Your task to perform on an android device: open app "NewsBreak: Local News & Alerts" (install if not already installed), go to login, and select forgot password Image 0: 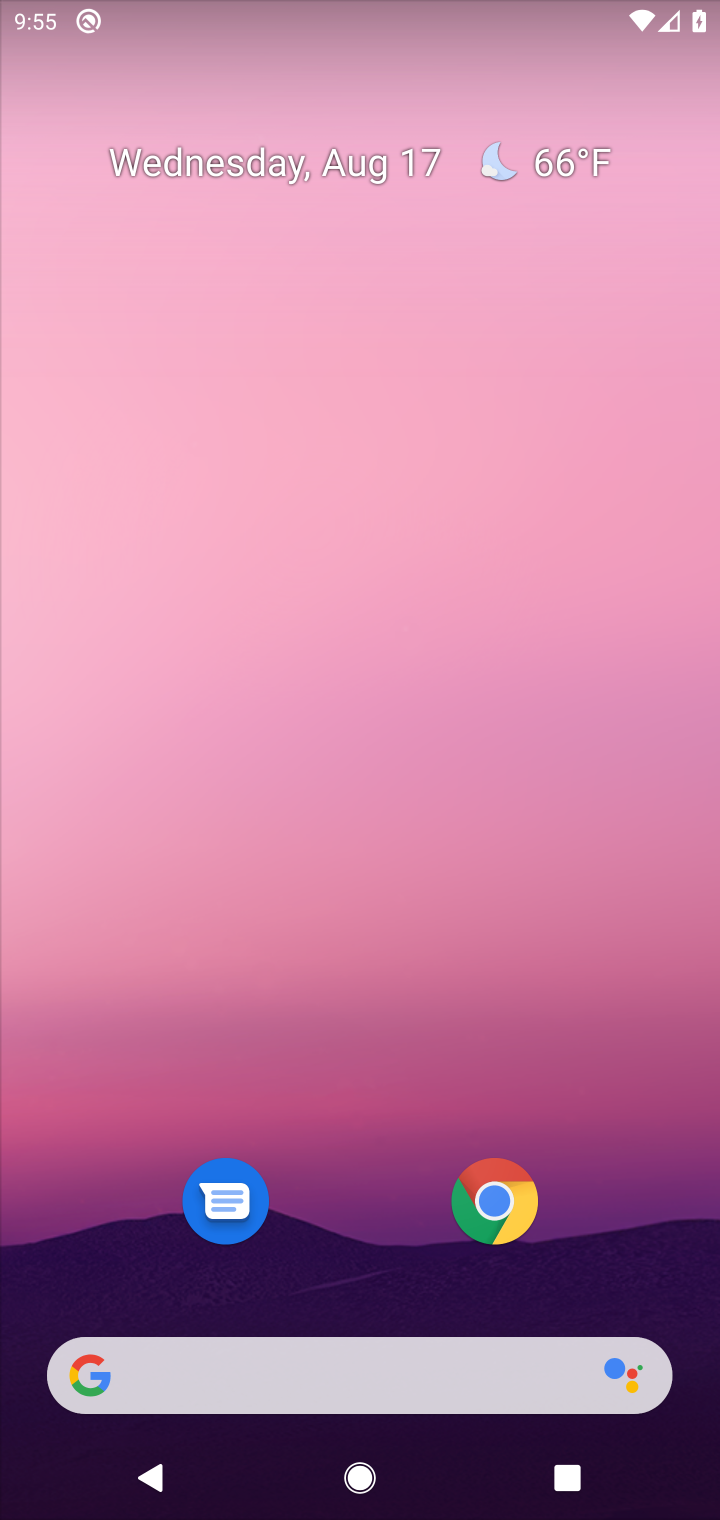
Step 0: press home button
Your task to perform on an android device: open app "NewsBreak: Local News & Alerts" (install if not already installed), go to login, and select forgot password Image 1: 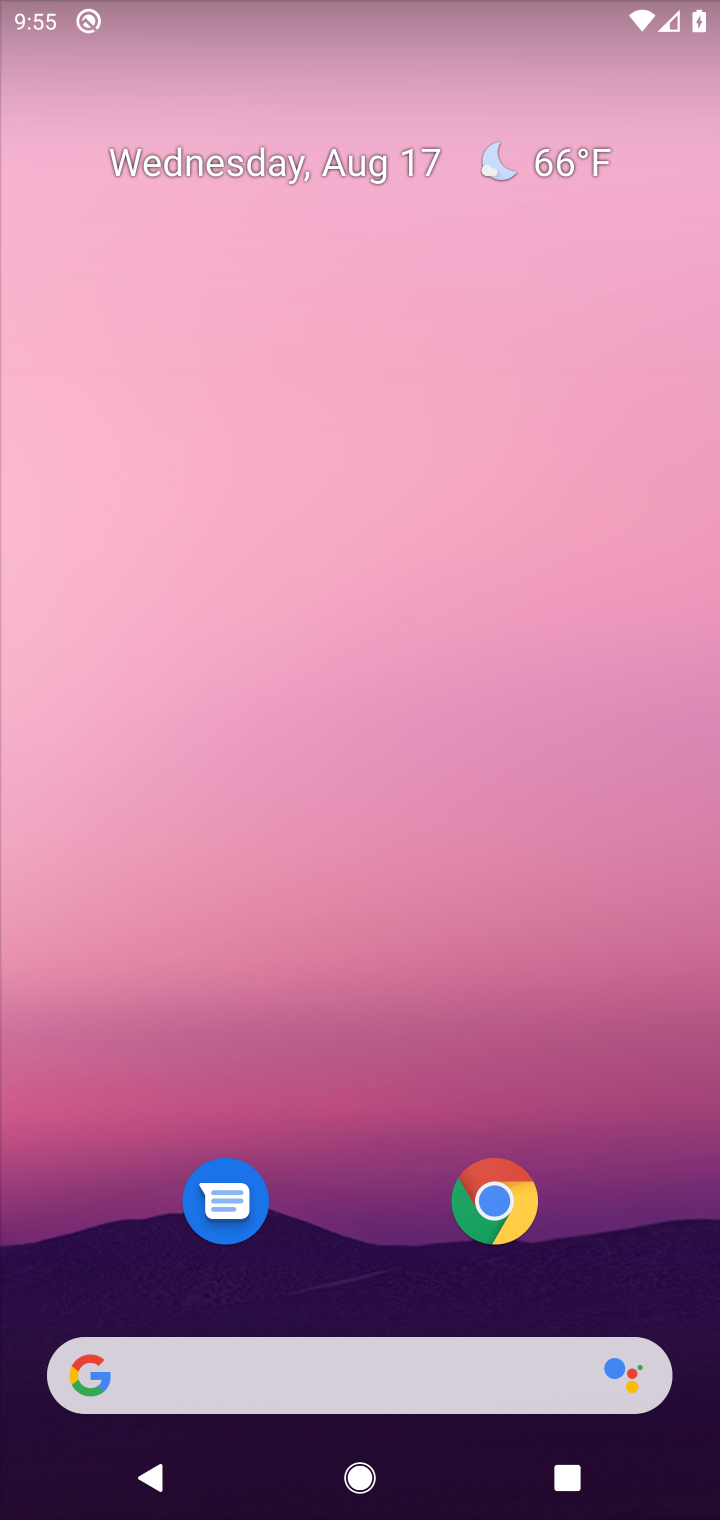
Step 1: drag from (376, 1278) to (475, 48)
Your task to perform on an android device: open app "NewsBreak: Local News & Alerts" (install if not already installed), go to login, and select forgot password Image 2: 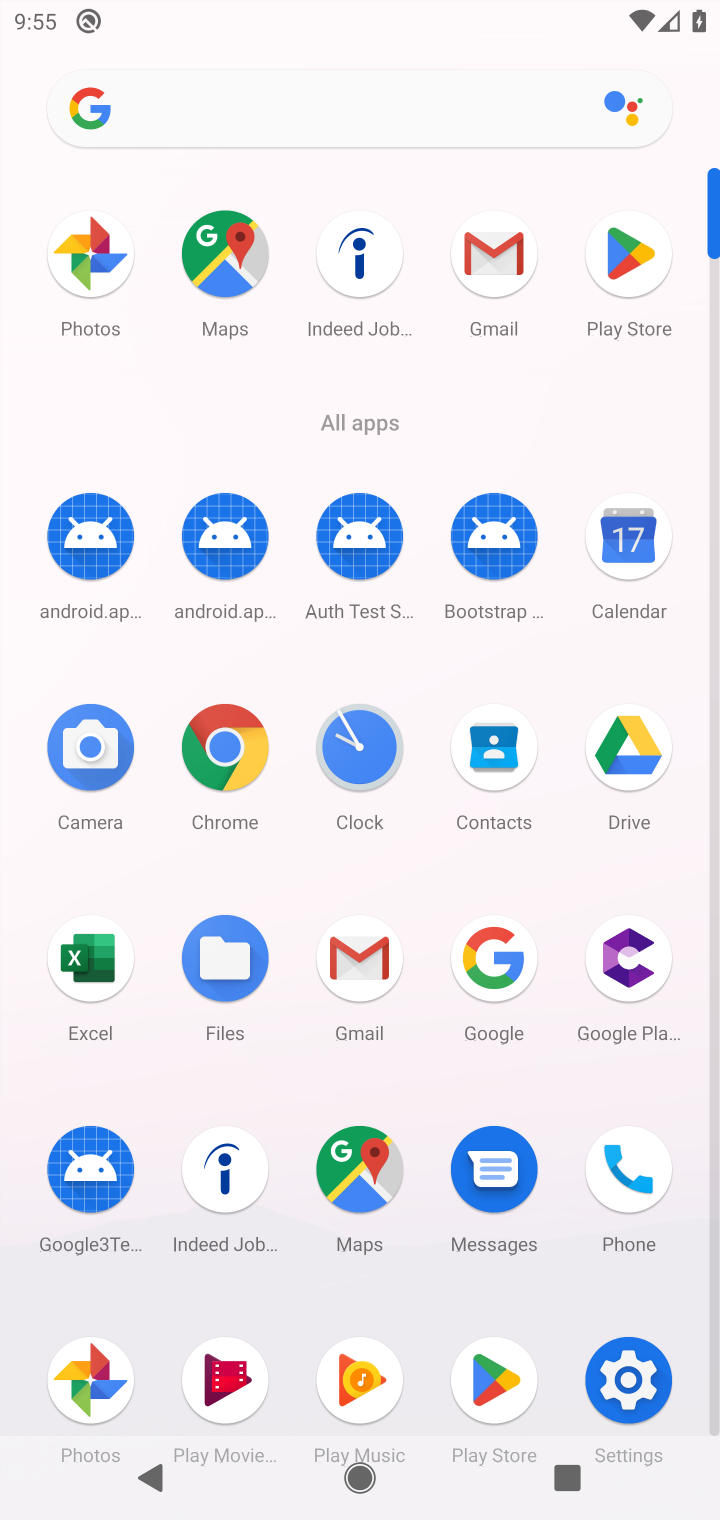
Step 2: click (620, 245)
Your task to perform on an android device: open app "NewsBreak: Local News & Alerts" (install if not already installed), go to login, and select forgot password Image 3: 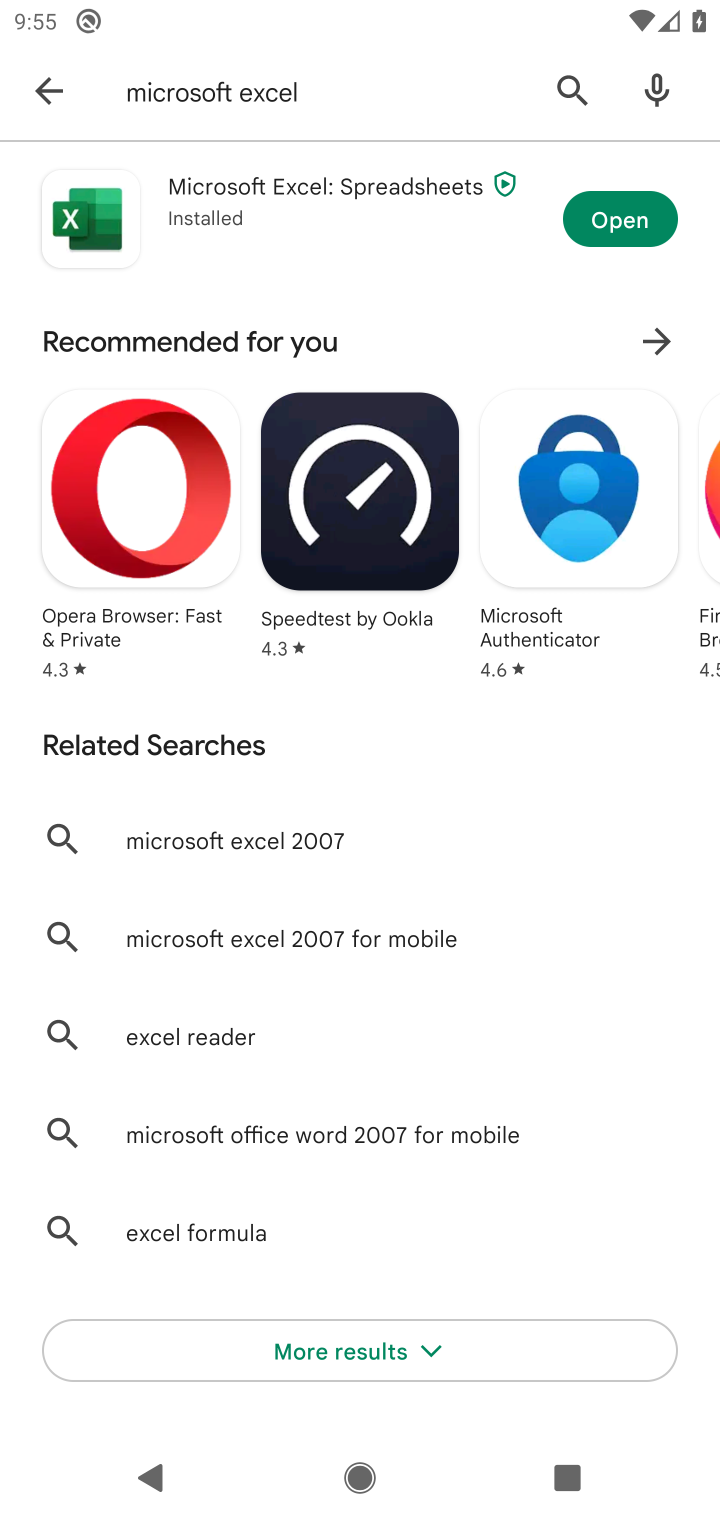
Step 3: click (576, 83)
Your task to perform on an android device: open app "NewsBreak: Local News & Alerts" (install if not already installed), go to login, and select forgot password Image 4: 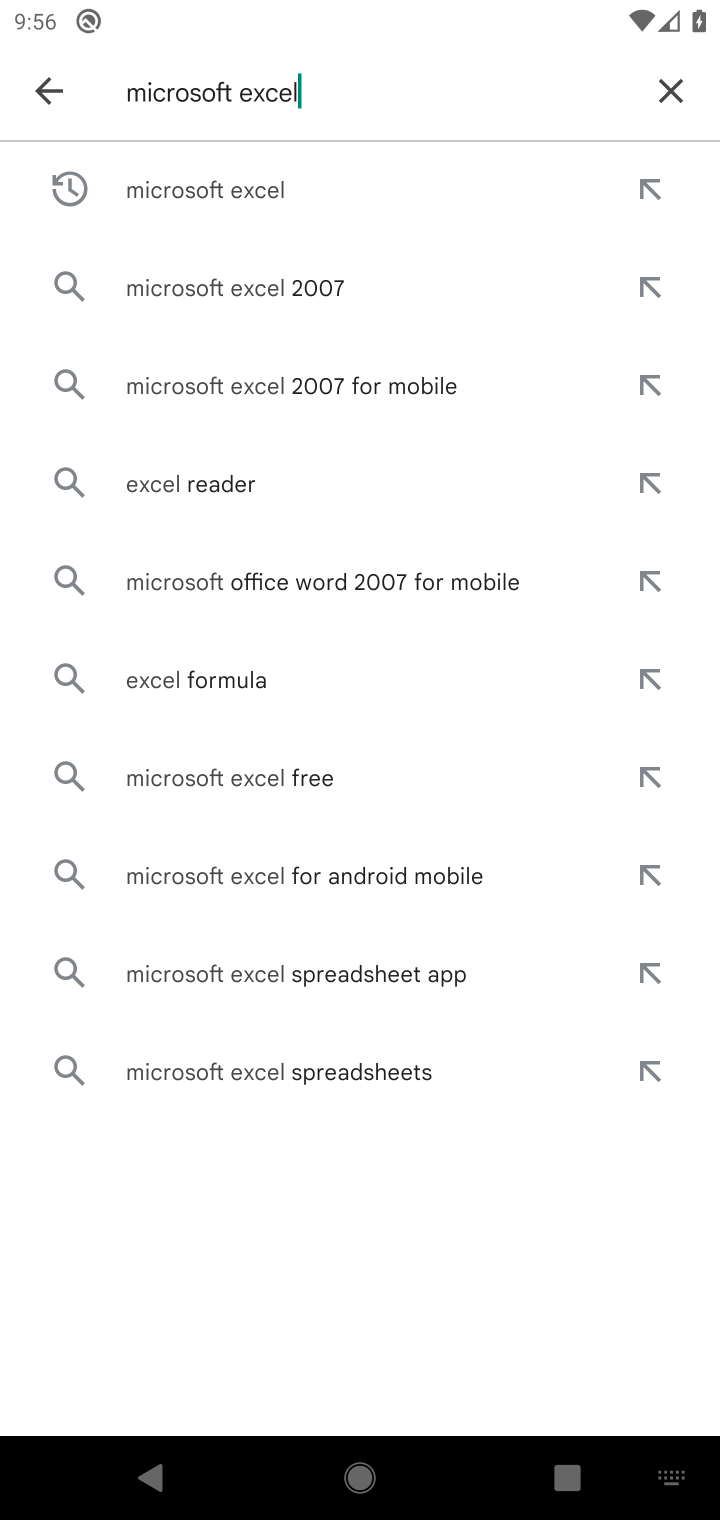
Step 4: click (679, 85)
Your task to perform on an android device: open app "NewsBreak: Local News & Alerts" (install if not already installed), go to login, and select forgot password Image 5: 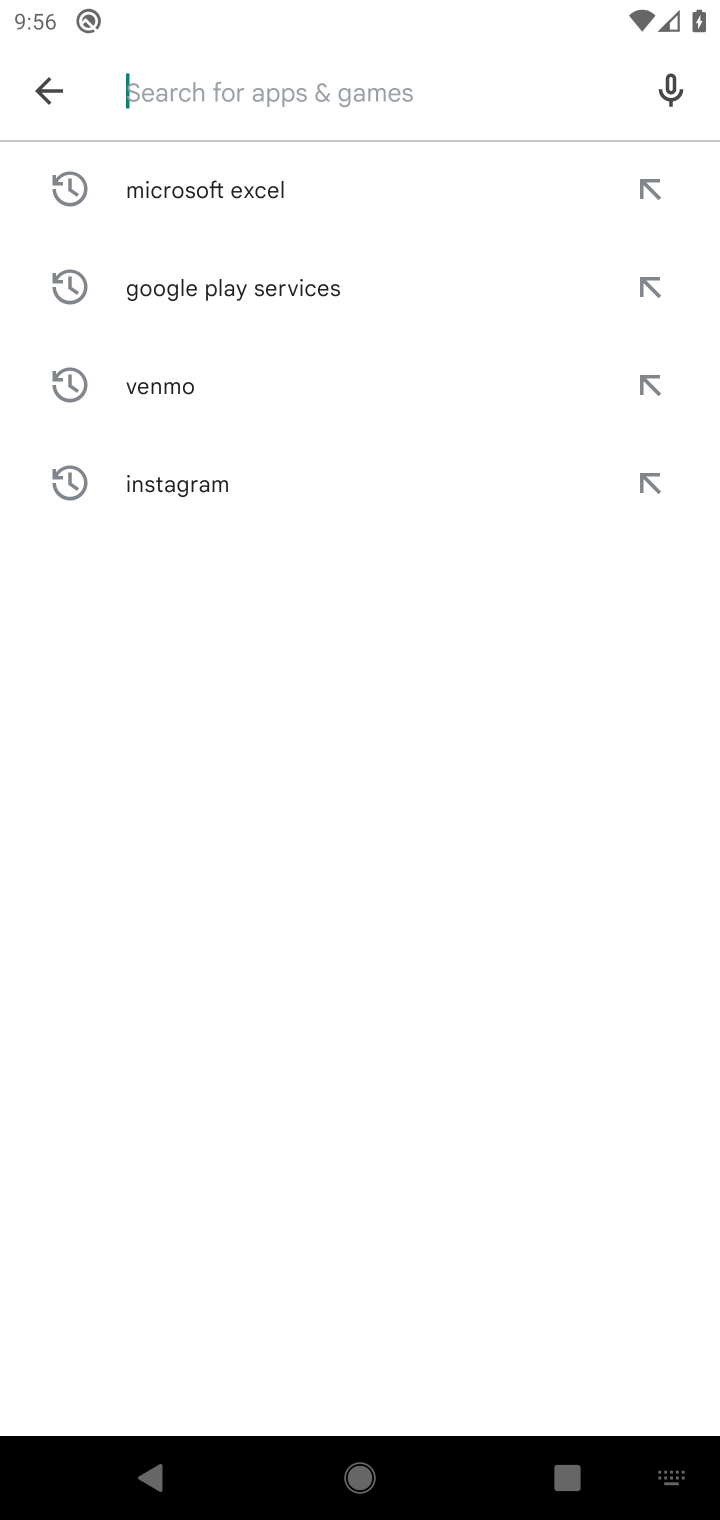
Step 5: type "NewsBreak: Local News & Alerts"
Your task to perform on an android device: open app "NewsBreak: Local News & Alerts" (install if not already installed), go to login, and select forgot password Image 6: 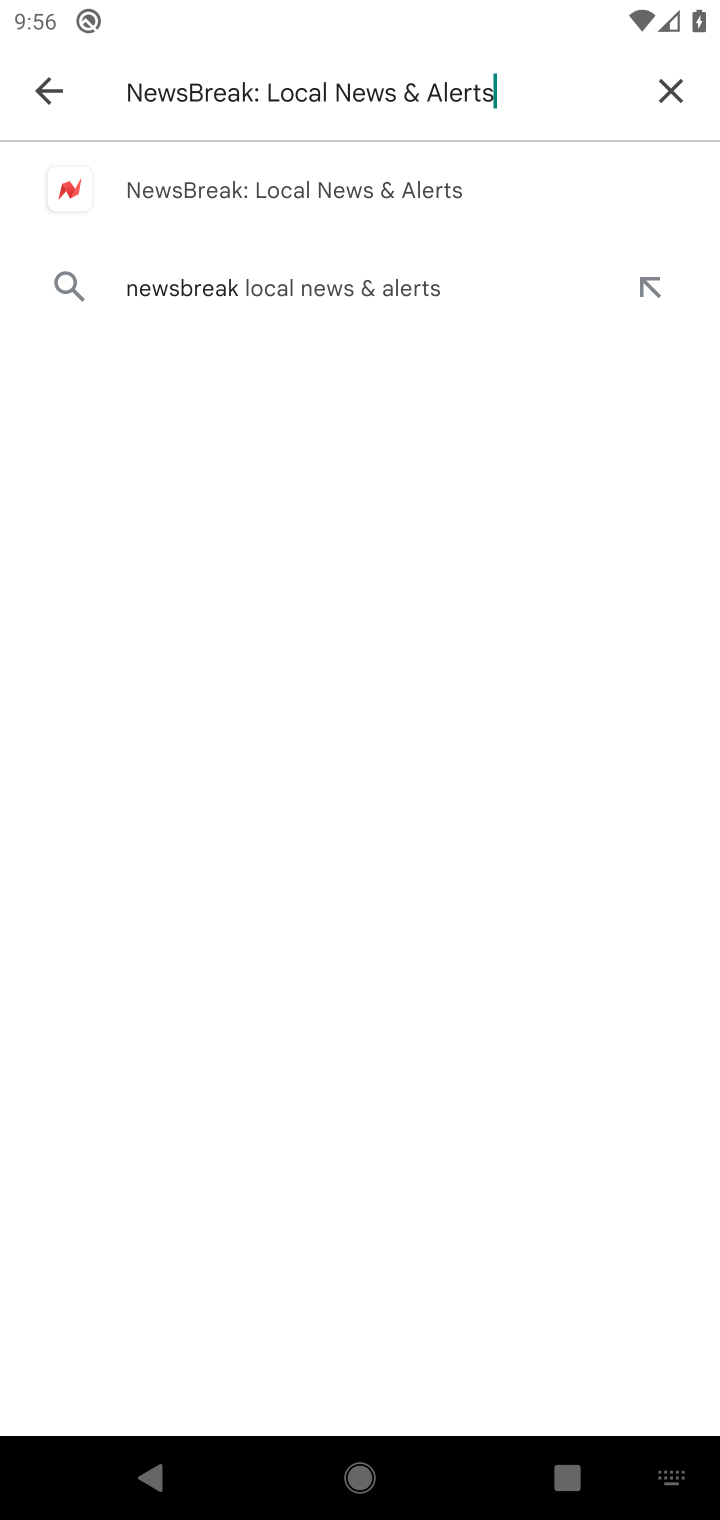
Step 6: click (309, 169)
Your task to perform on an android device: open app "NewsBreak: Local News & Alerts" (install if not already installed), go to login, and select forgot password Image 7: 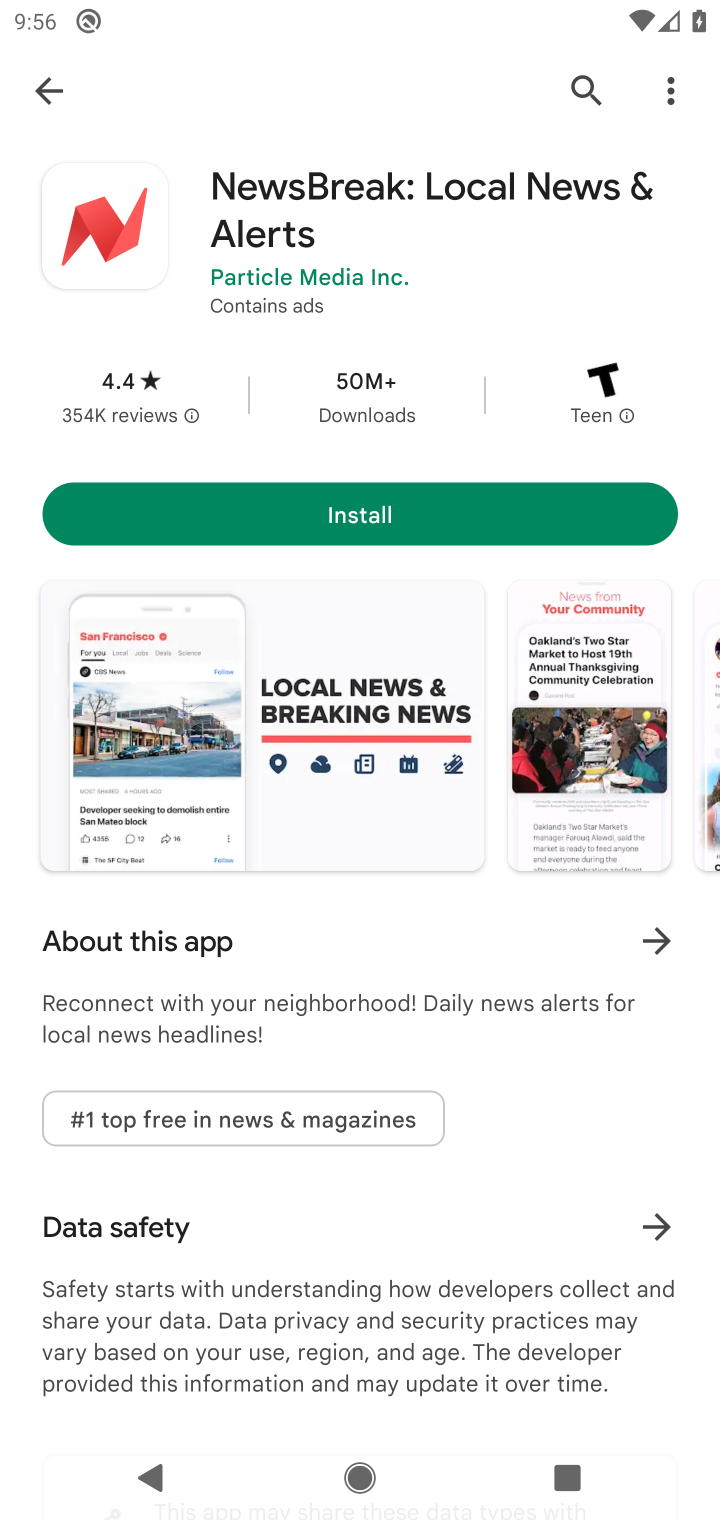
Step 7: click (356, 518)
Your task to perform on an android device: open app "NewsBreak: Local News & Alerts" (install if not already installed), go to login, and select forgot password Image 8: 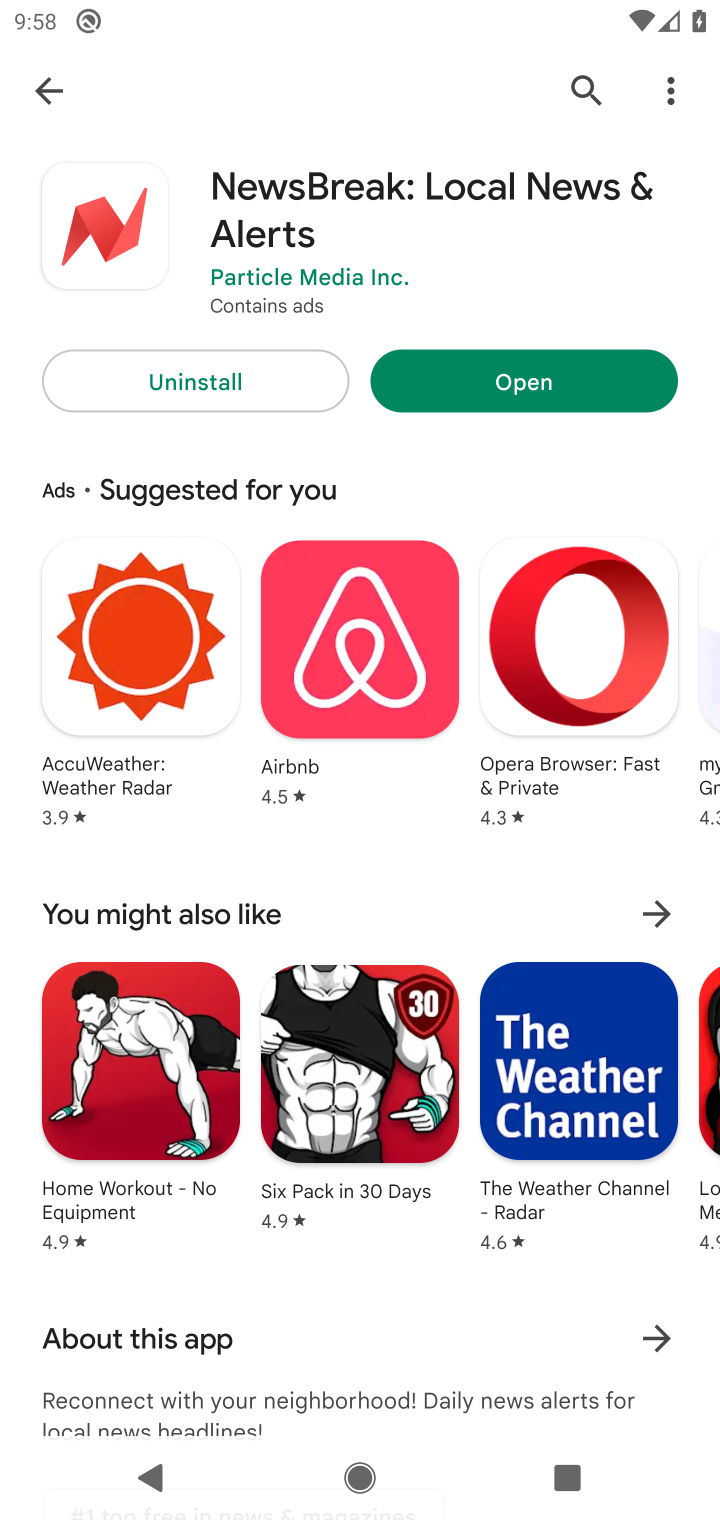
Step 8: click (509, 386)
Your task to perform on an android device: open app "NewsBreak: Local News & Alerts" (install if not already installed), go to login, and select forgot password Image 9: 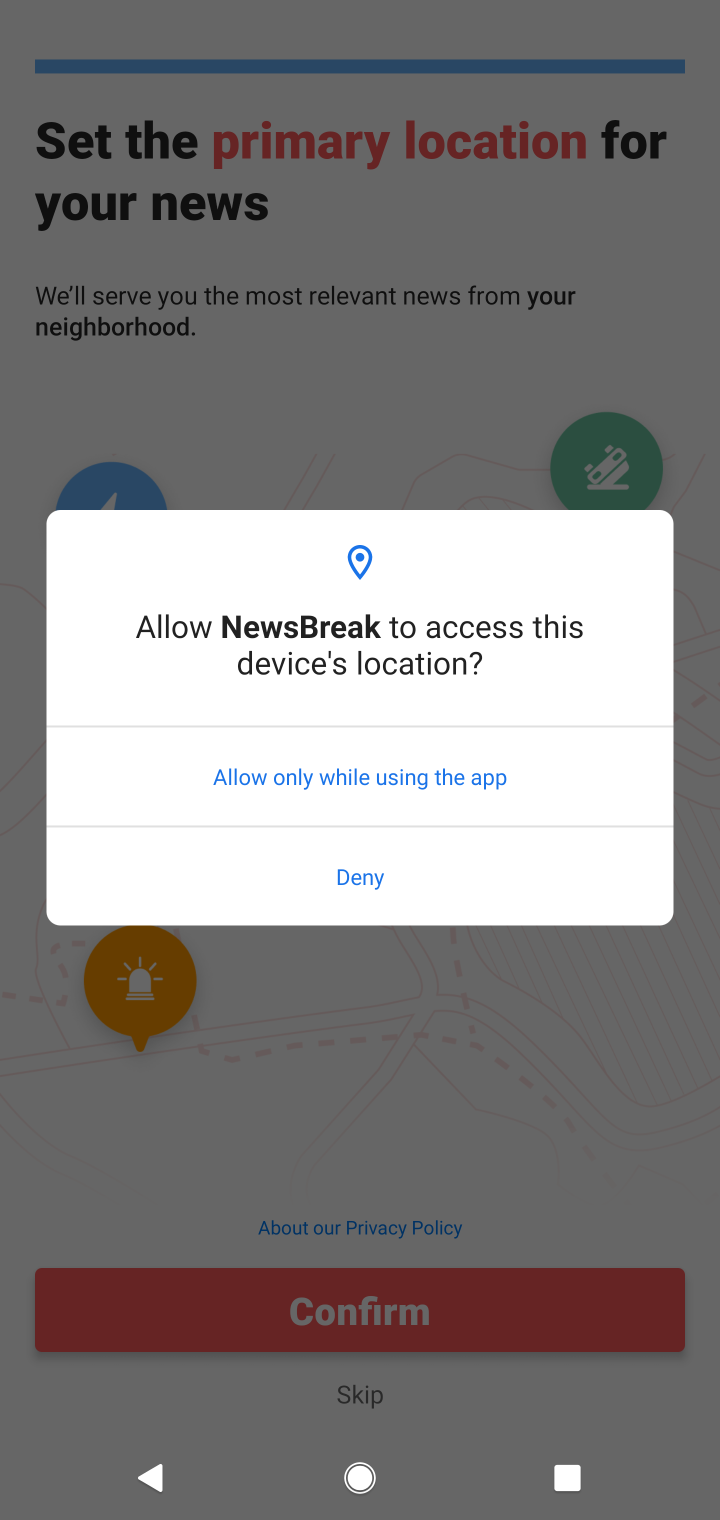
Step 9: click (356, 772)
Your task to perform on an android device: open app "NewsBreak: Local News & Alerts" (install if not already installed), go to login, and select forgot password Image 10: 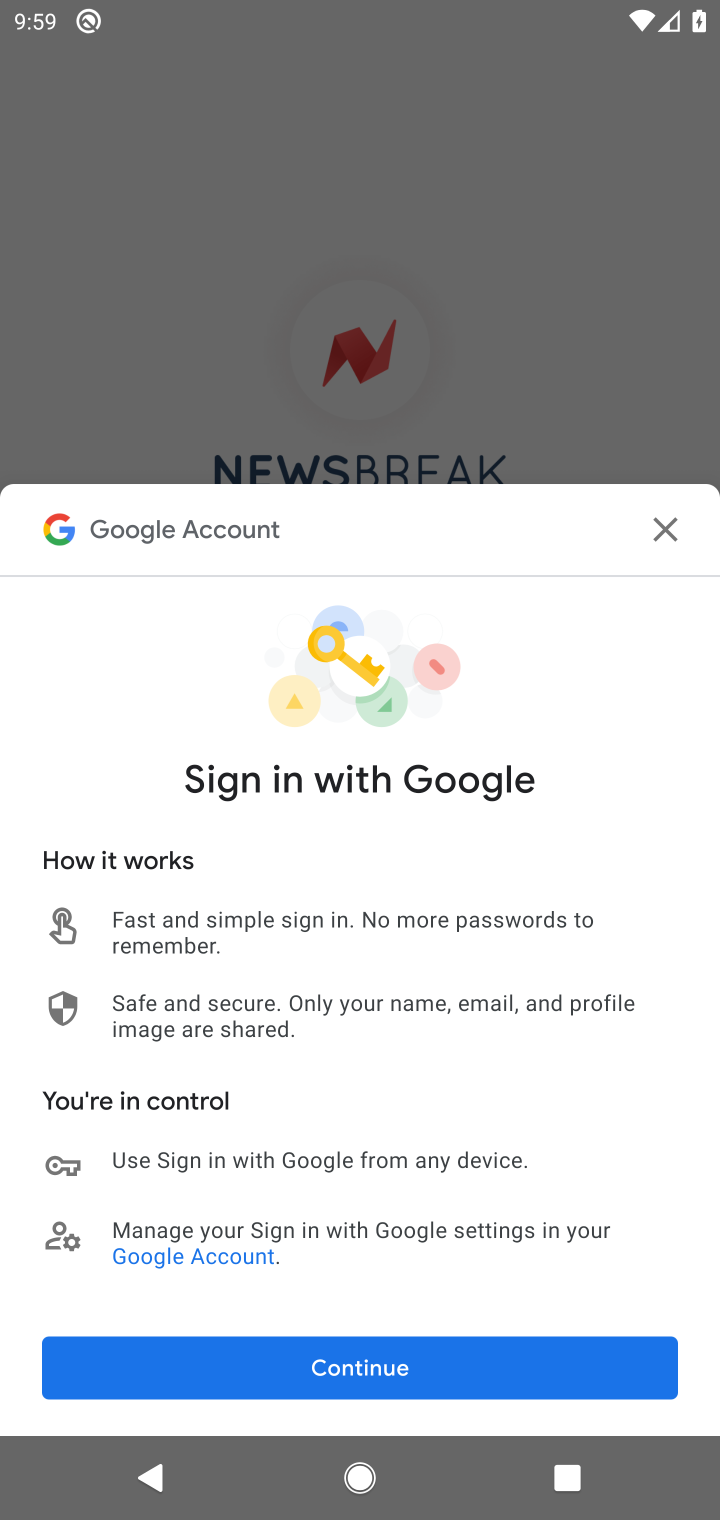
Step 10: click (363, 1363)
Your task to perform on an android device: open app "NewsBreak: Local News & Alerts" (install if not already installed), go to login, and select forgot password Image 11: 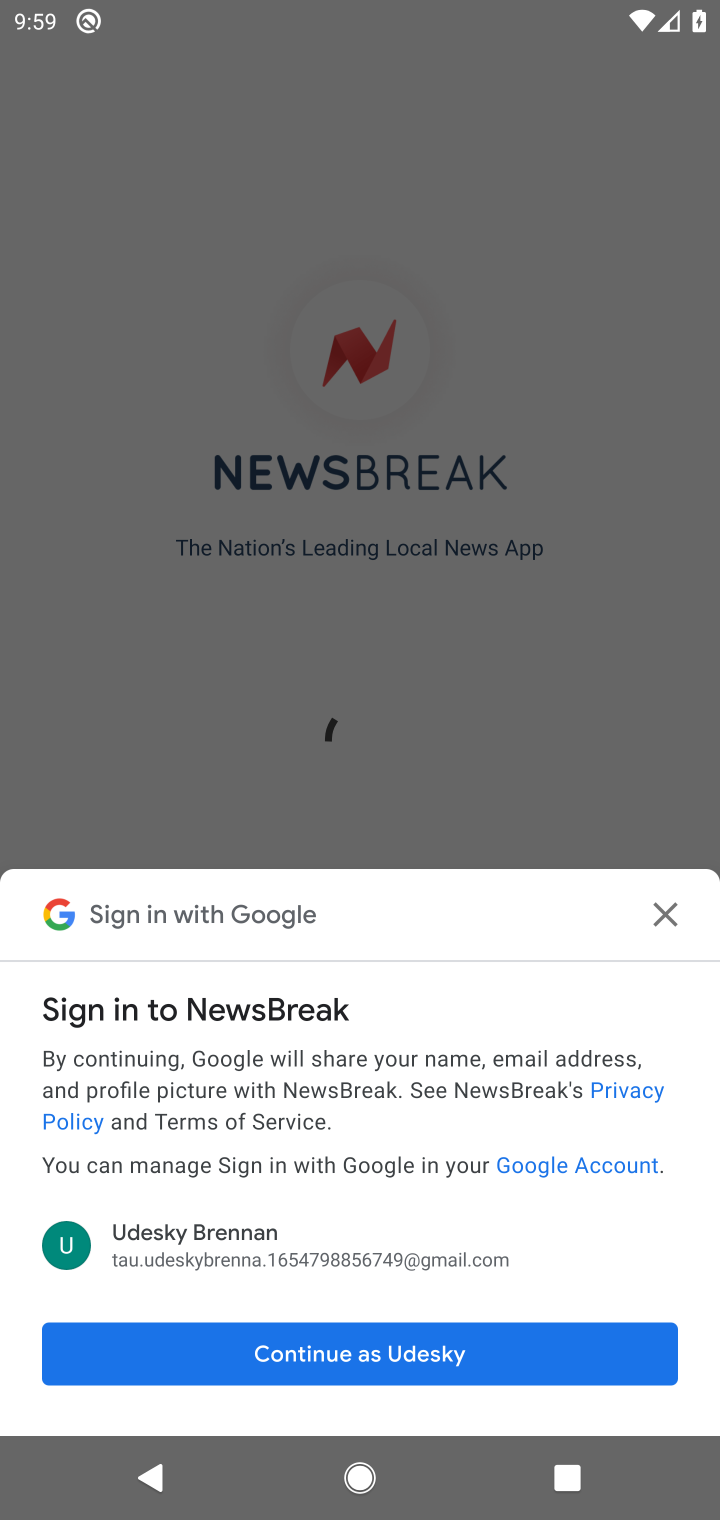
Step 11: click (345, 1352)
Your task to perform on an android device: open app "NewsBreak: Local News & Alerts" (install if not already installed), go to login, and select forgot password Image 12: 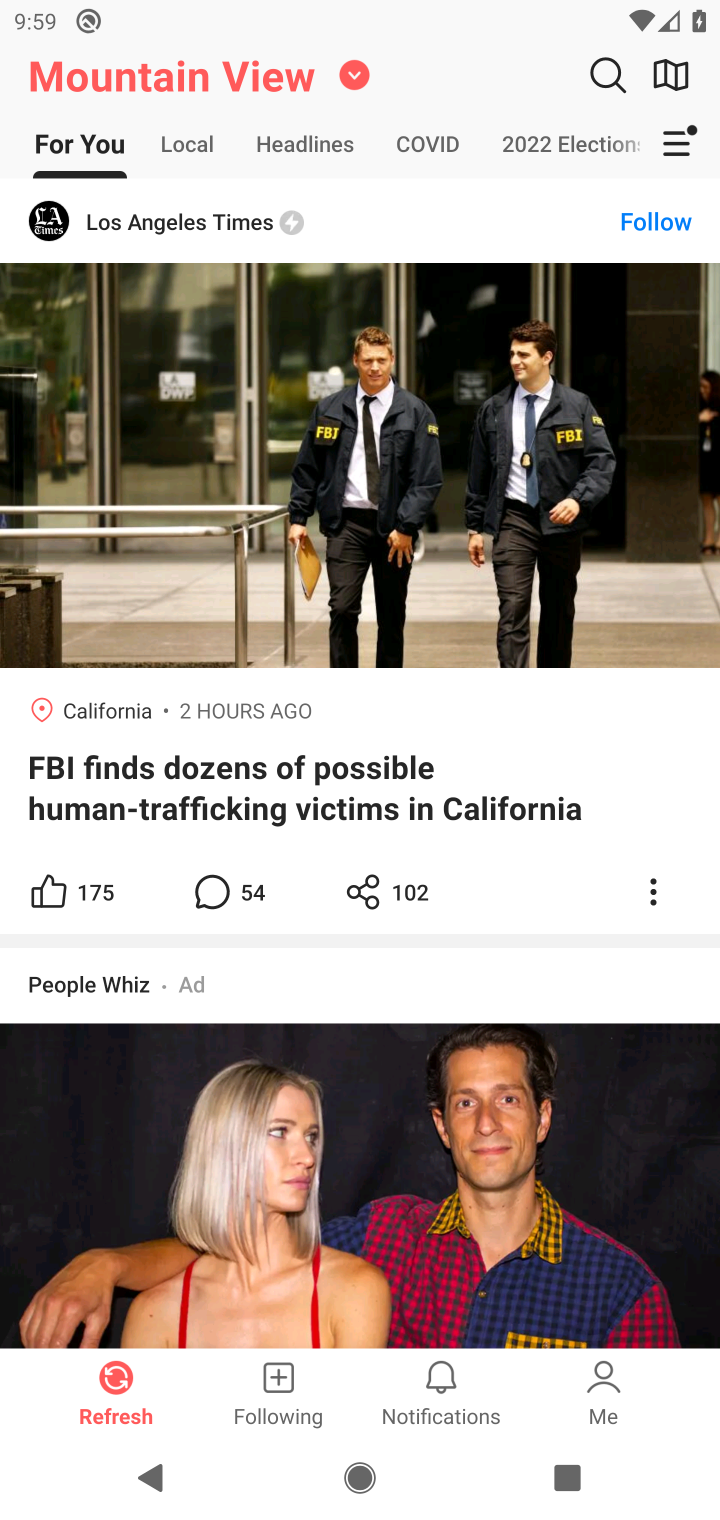
Step 12: task complete